Your task to perform on an android device: toggle notification dots Image 0: 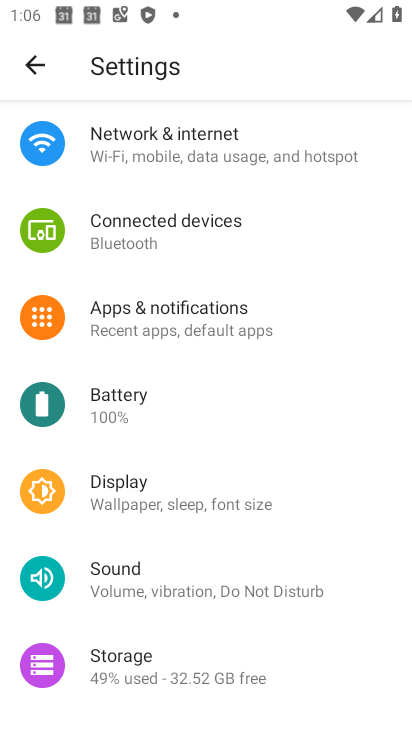
Step 0: press home button
Your task to perform on an android device: toggle notification dots Image 1: 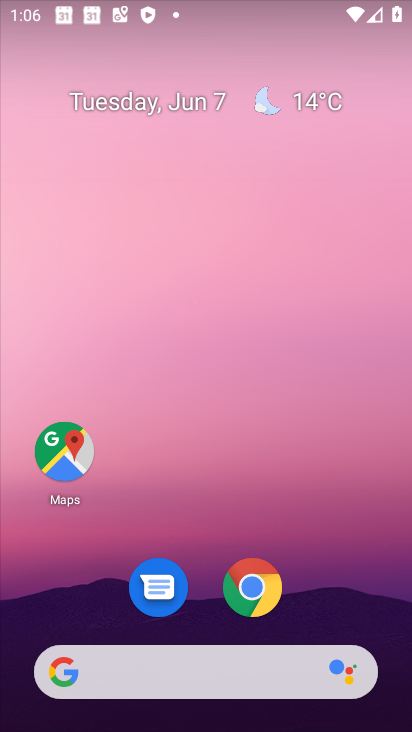
Step 1: drag from (213, 676) to (240, 264)
Your task to perform on an android device: toggle notification dots Image 2: 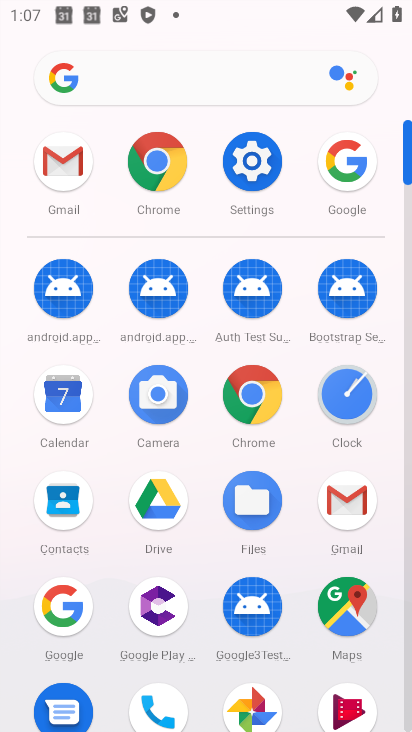
Step 2: click (243, 194)
Your task to perform on an android device: toggle notification dots Image 3: 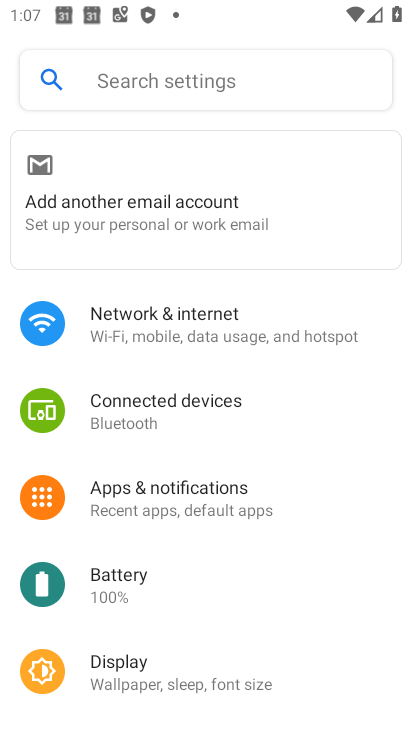
Step 3: click (257, 511)
Your task to perform on an android device: toggle notification dots Image 4: 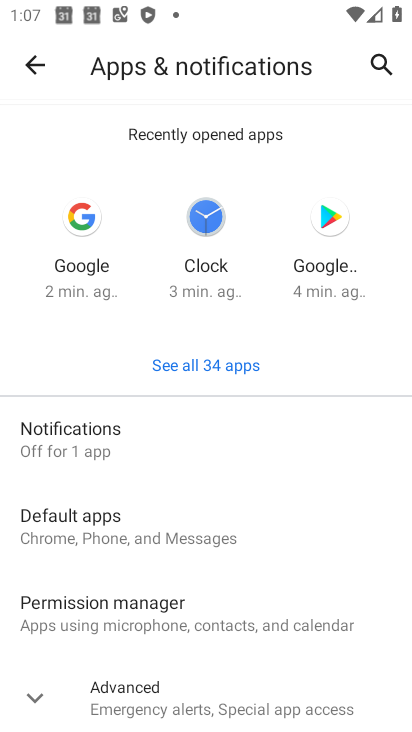
Step 4: drag from (229, 641) to (249, 355)
Your task to perform on an android device: toggle notification dots Image 5: 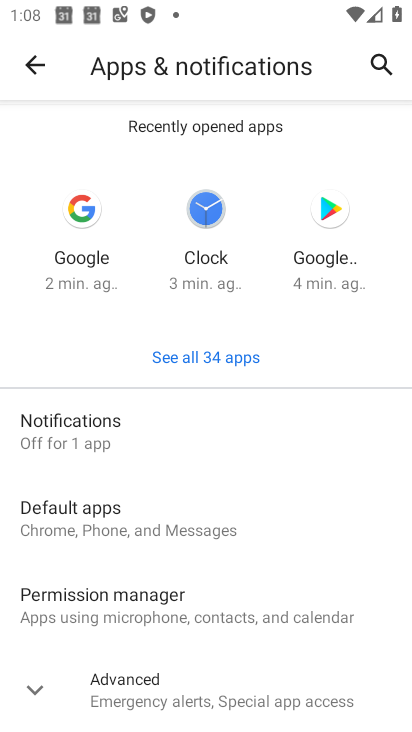
Step 5: click (155, 447)
Your task to perform on an android device: toggle notification dots Image 6: 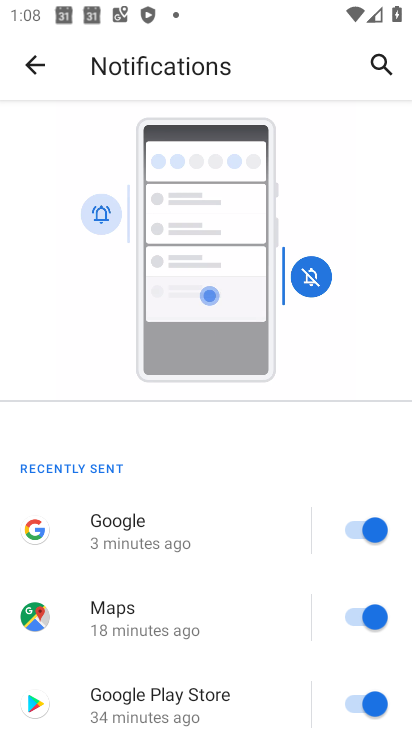
Step 6: drag from (160, 589) to (202, 161)
Your task to perform on an android device: toggle notification dots Image 7: 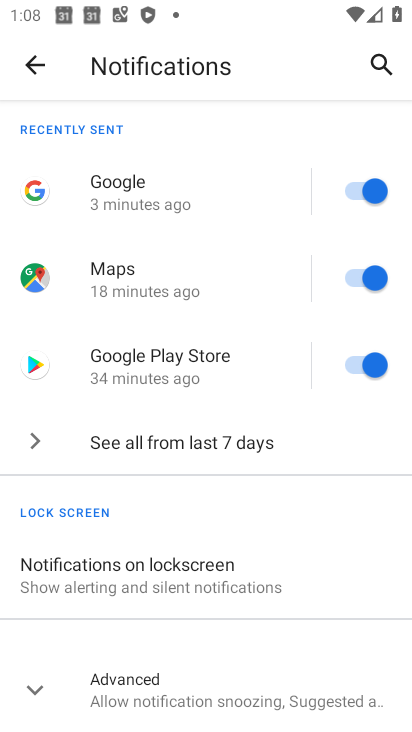
Step 7: click (203, 674)
Your task to perform on an android device: toggle notification dots Image 8: 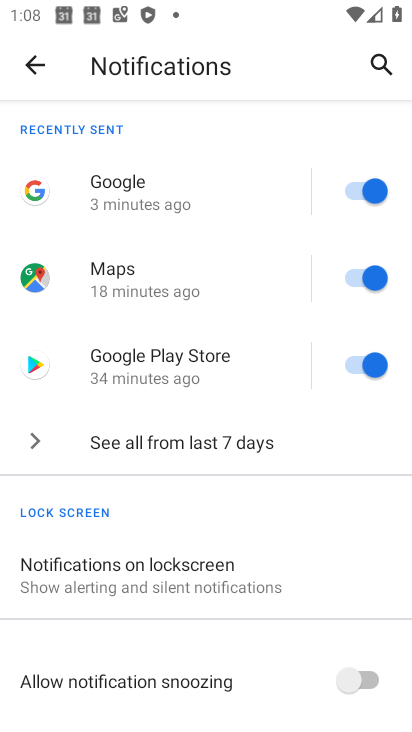
Step 8: drag from (115, 613) to (116, 127)
Your task to perform on an android device: toggle notification dots Image 9: 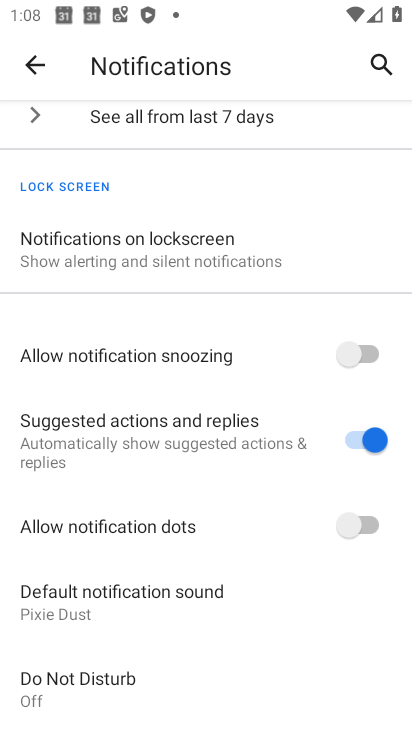
Step 9: drag from (144, 522) to (137, 227)
Your task to perform on an android device: toggle notification dots Image 10: 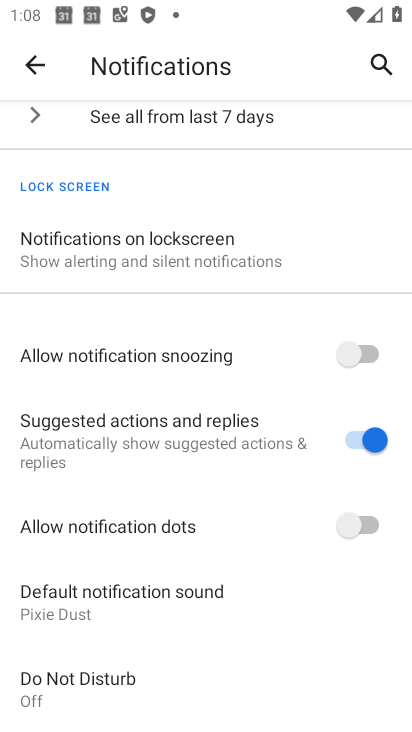
Step 10: click (173, 524)
Your task to perform on an android device: toggle notification dots Image 11: 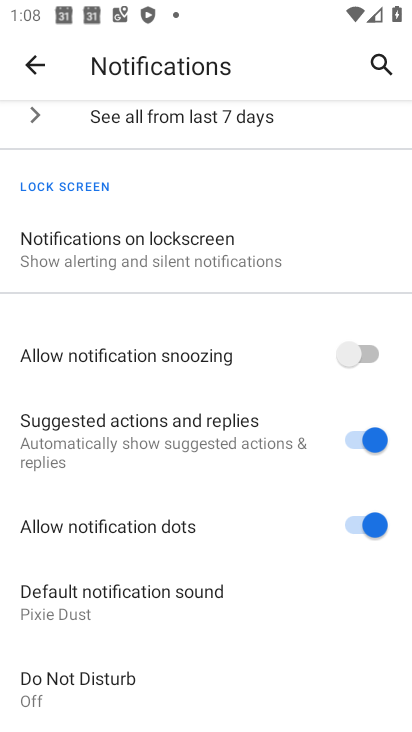
Step 11: click (218, 532)
Your task to perform on an android device: toggle notification dots Image 12: 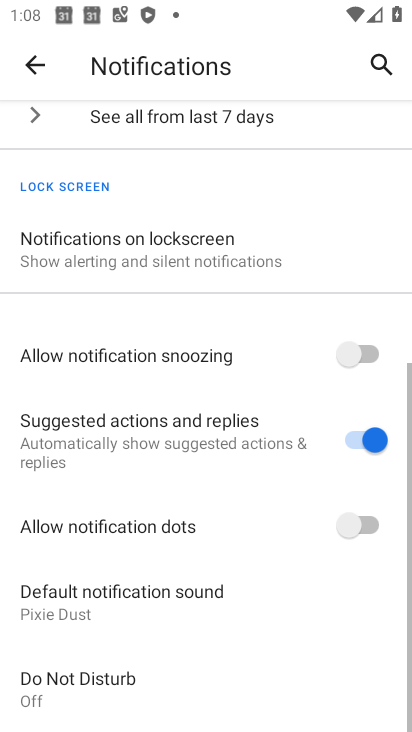
Step 12: task complete